Your task to perform on an android device: Go to ESPN.com Image 0: 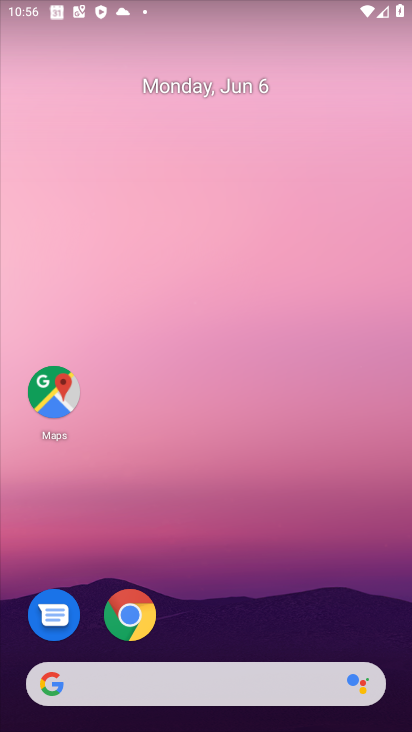
Step 0: click (128, 677)
Your task to perform on an android device: Go to ESPN.com Image 1: 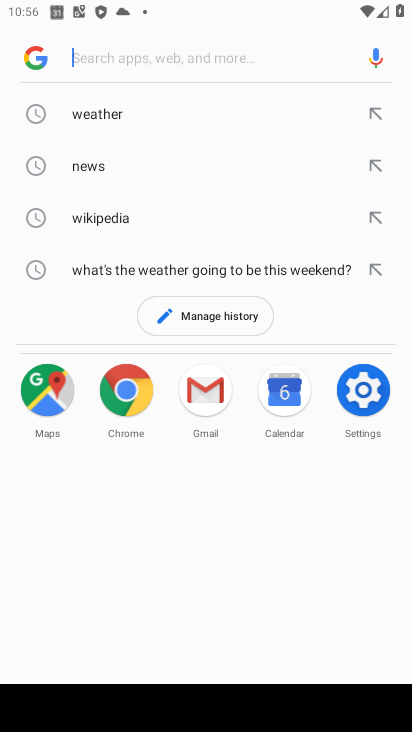
Step 1: type "espn"
Your task to perform on an android device: Go to ESPN.com Image 2: 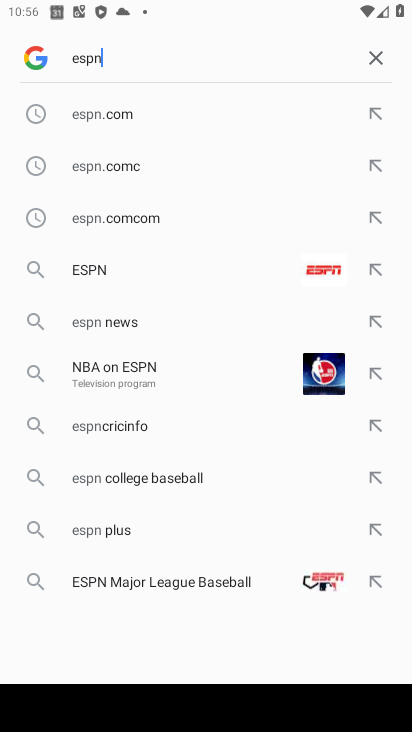
Step 2: click (162, 118)
Your task to perform on an android device: Go to ESPN.com Image 3: 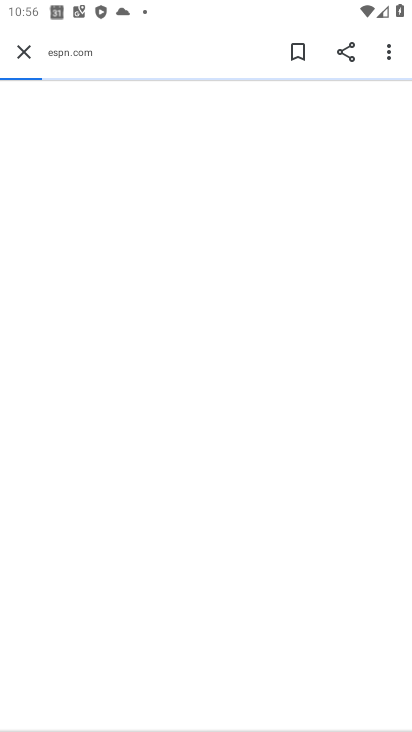
Step 3: task complete